Your task to perform on an android device: Go to network settings Image 0: 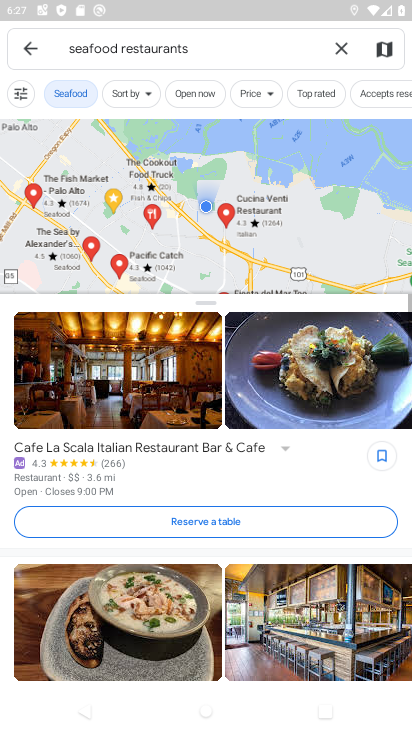
Step 0: press home button
Your task to perform on an android device: Go to network settings Image 1: 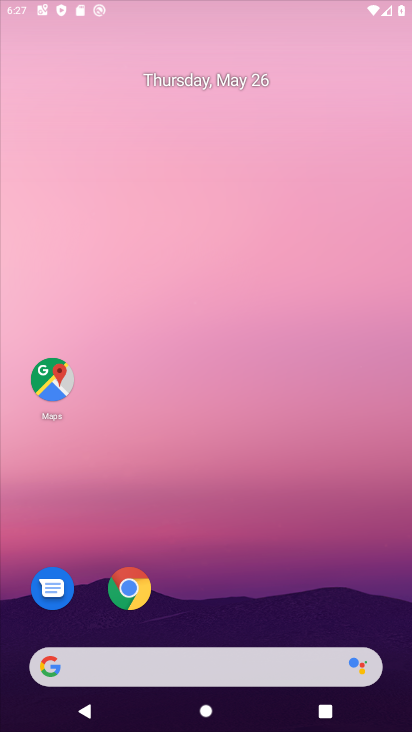
Step 1: drag from (385, 623) to (267, 93)
Your task to perform on an android device: Go to network settings Image 2: 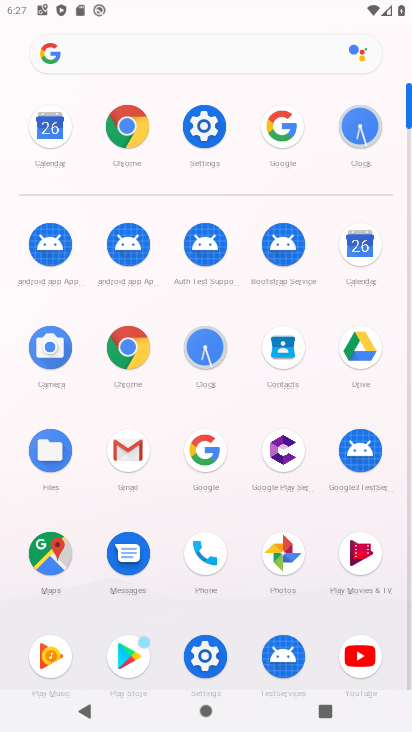
Step 2: click (193, 131)
Your task to perform on an android device: Go to network settings Image 3: 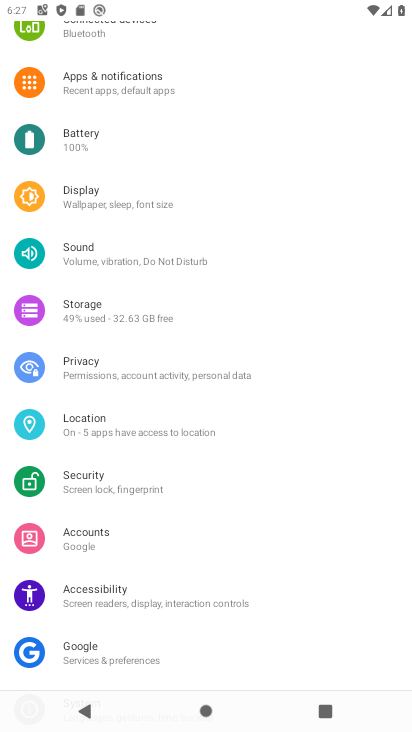
Step 3: drag from (164, 68) to (213, 632)
Your task to perform on an android device: Go to network settings Image 4: 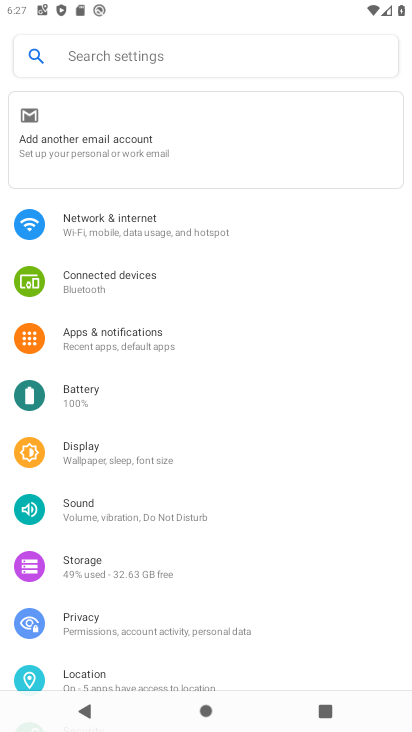
Step 4: click (148, 218)
Your task to perform on an android device: Go to network settings Image 5: 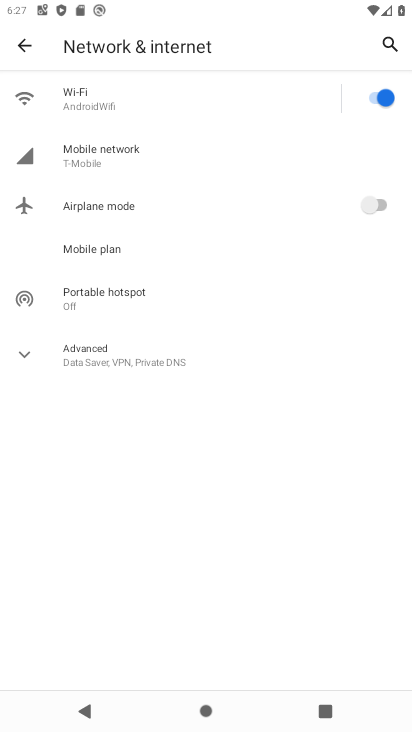
Step 5: task complete